Your task to perform on an android device: Do I have any events tomorrow? Image 0: 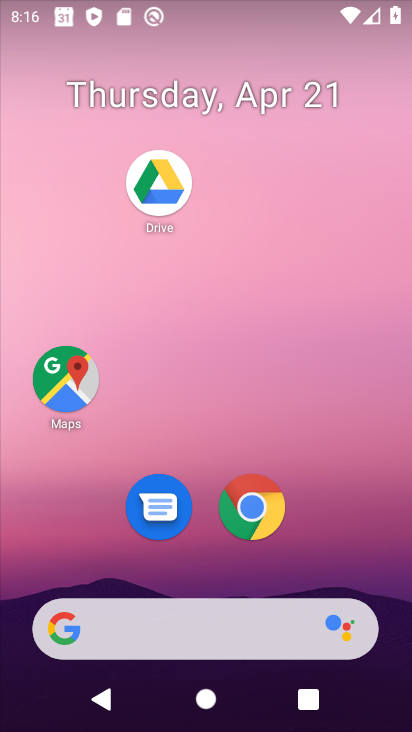
Step 0: drag from (356, 560) to (347, 158)
Your task to perform on an android device: Do I have any events tomorrow? Image 1: 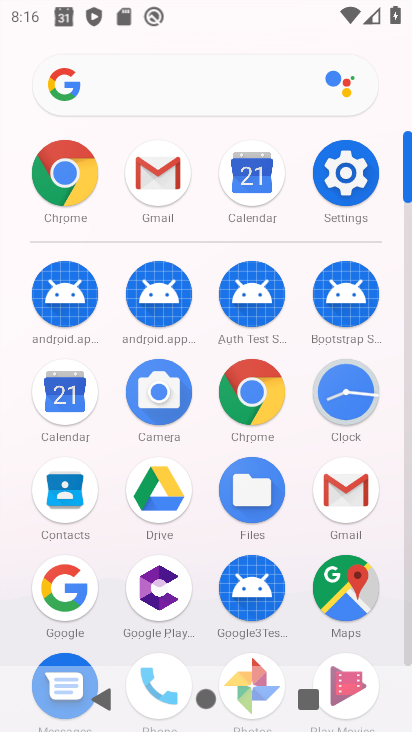
Step 1: click (73, 401)
Your task to perform on an android device: Do I have any events tomorrow? Image 2: 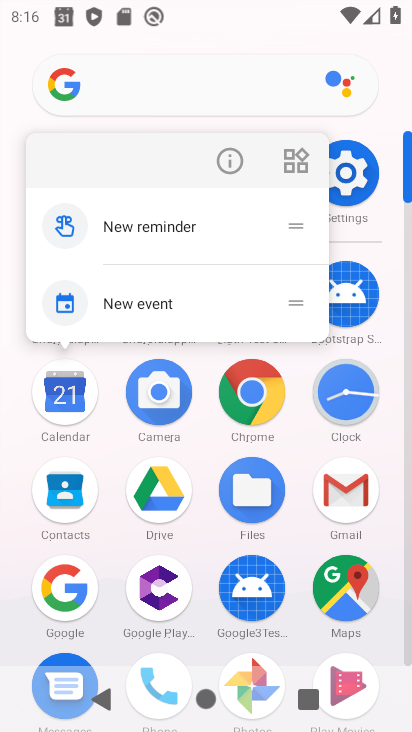
Step 2: click (73, 401)
Your task to perform on an android device: Do I have any events tomorrow? Image 3: 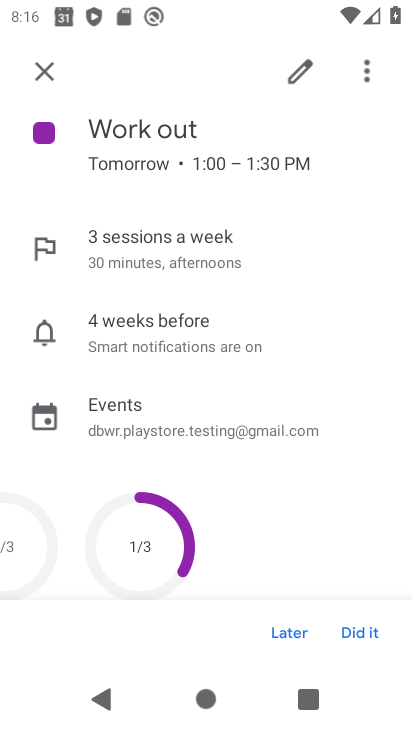
Step 3: task complete